Your task to perform on an android device: Do I have any events tomorrow? Image 0: 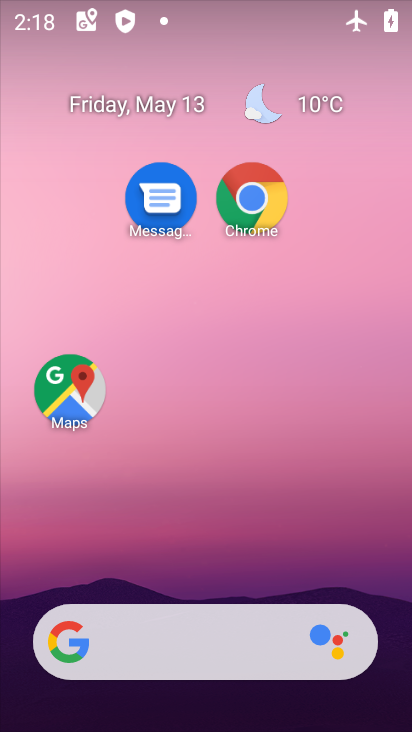
Step 0: drag from (194, 576) to (287, 7)
Your task to perform on an android device: Do I have any events tomorrow? Image 1: 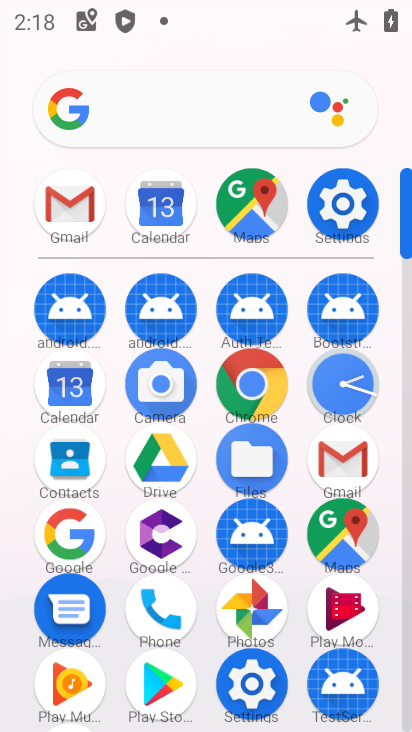
Step 1: click (65, 406)
Your task to perform on an android device: Do I have any events tomorrow? Image 2: 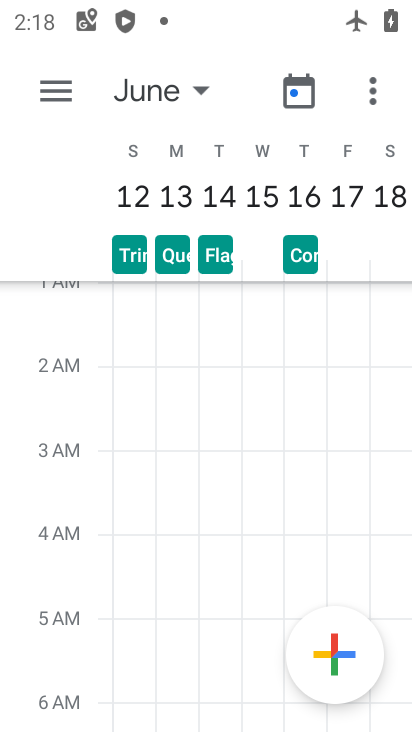
Step 2: click (306, 79)
Your task to perform on an android device: Do I have any events tomorrow? Image 3: 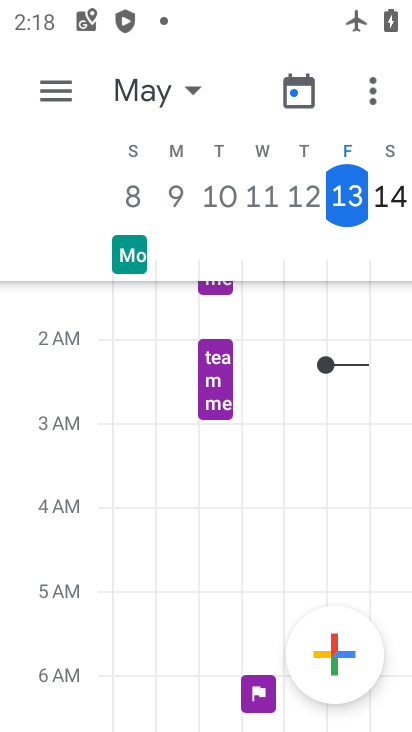
Step 3: click (374, 191)
Your task to perform on an android device: Do I have any events tomorrow? Image 4: 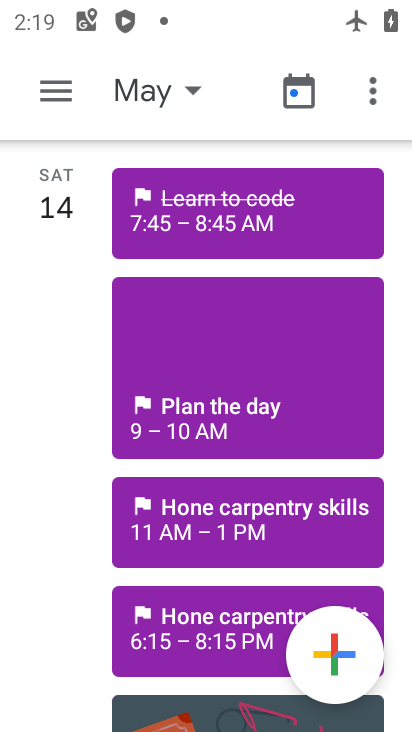
Step 4: task complete